Your task to perform on an android device: Is it going to rain this weekend? Image 0: 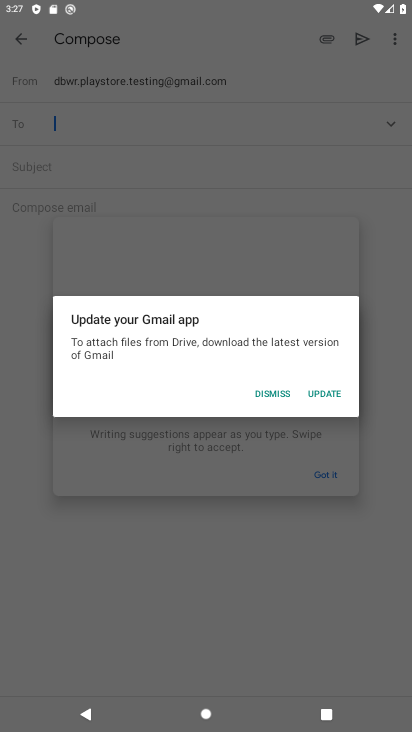
Step 0: press home button
Your task to perform on an android device: Is it going to rain this weekend? Image 1: 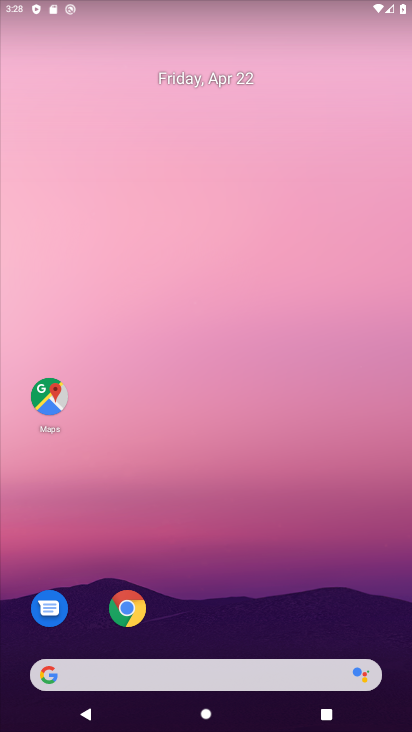
Step 1: click (122, 608)
Your task to perform on an android device: Is it going to rain this weekend? Image 2: 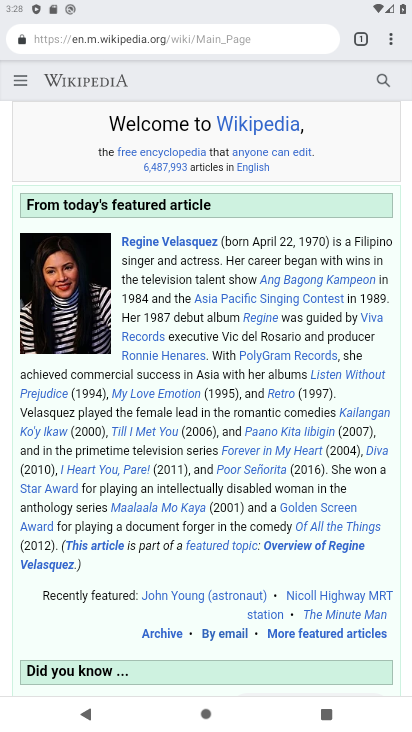
Step 2: click (89, 46)
Your task to perform on an android device: Is it going to rain this weekend? Image 3: 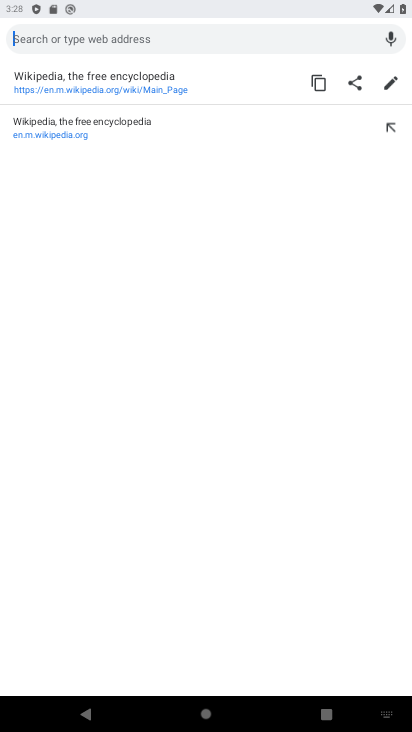
Step 3: type "Is it going to rain this weekend?"
Your task to perform on an android device: Is it going to rain this weekend? Image 4: 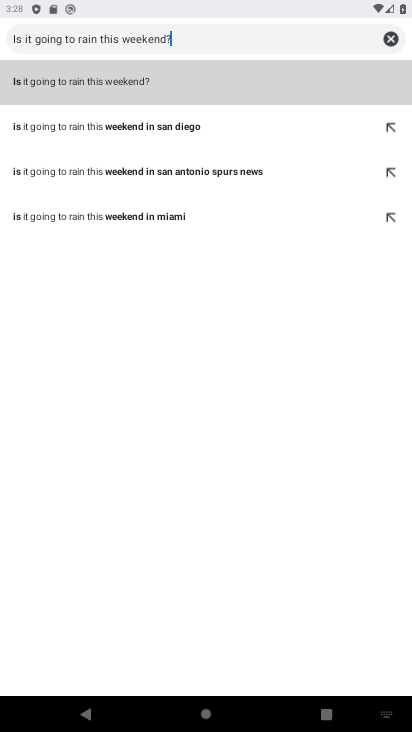
Step 4: click (129, 79)
Your task to perform on an android device: Is it going to rain this weekend? Image 5: 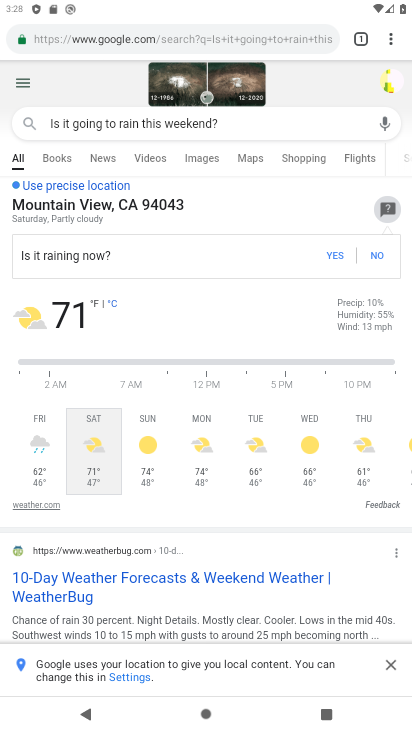
Step 5: task complete